Your task to perform on an android device: toggle pop-ups in chrome Image 0: 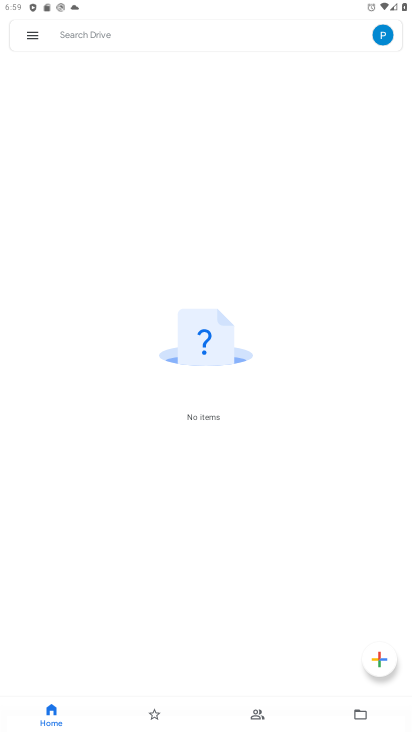
Step 0: press home button
Your task to perform on an android device: toggle pop-ups in chrome Image 1: 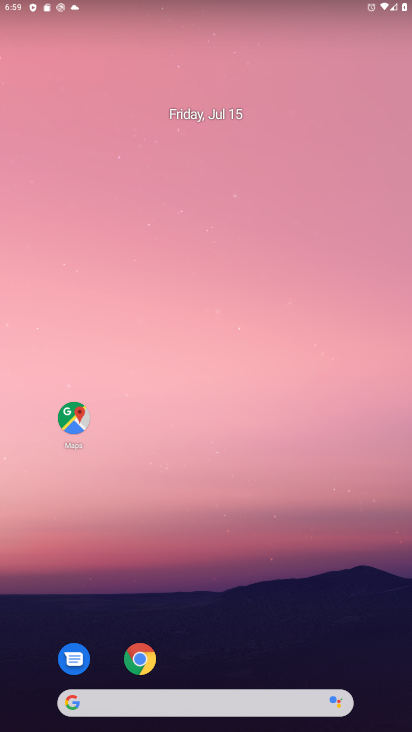
Step 1: click (141, 663)
Your task to perform on an android device: toggle pop-ups in chrome Image 2: 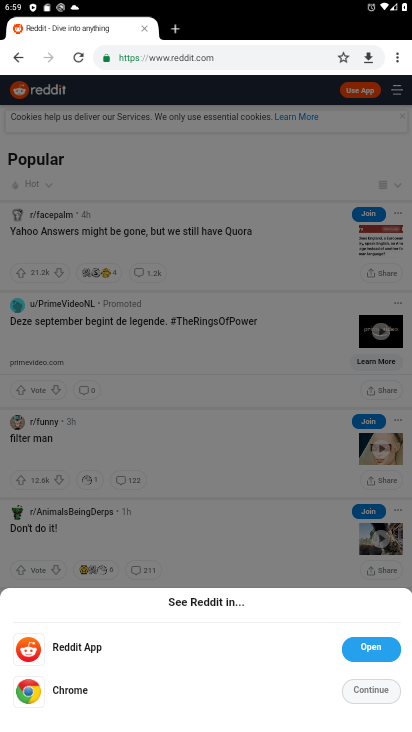
Step 2: click (394, 61)
Your task to perform on an android device: toggle pop-ups in chrome Image 3: 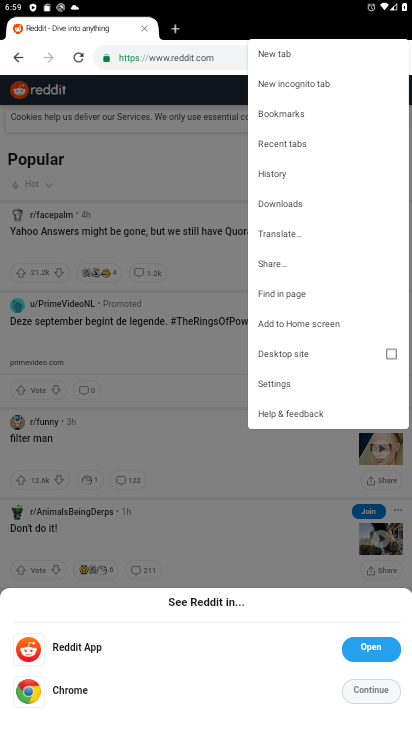
Step 3: click (281, 385)
Your task to perform on an android device: toggle pop-ups in chrome Image 4: 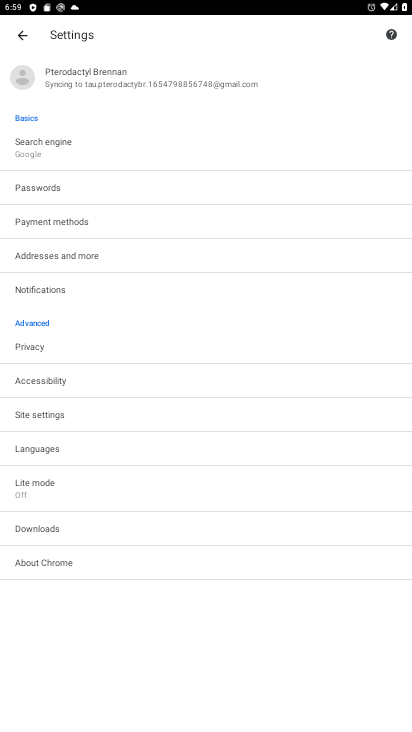
Step 4: click (37, 414)
Your task to perform on an android device: toggle pop-ups in chrome Image 5: 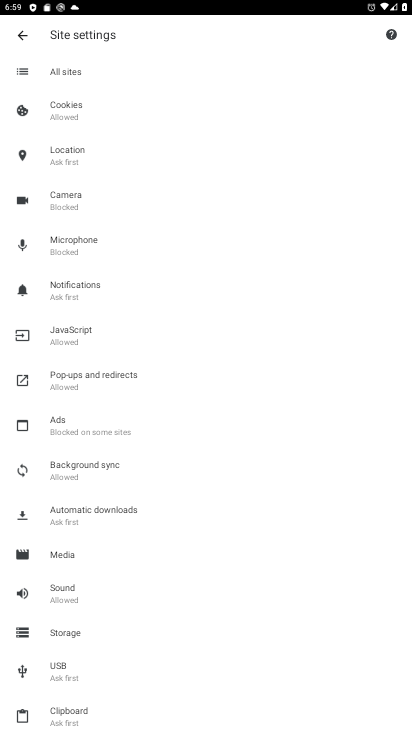
Step 5: click (64, 381)
Your task to perform on an android device: toggle pop-ups in chrome Image 6: 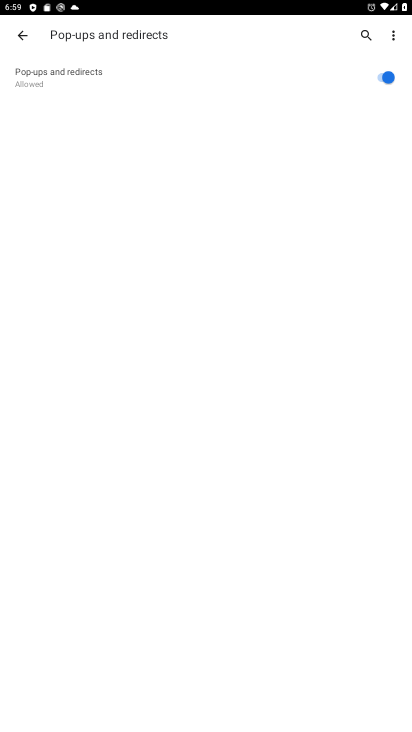
Step 6: click (376, 76)
Your task to perform on an android device: toggle pop-ups in chrome Image 7: 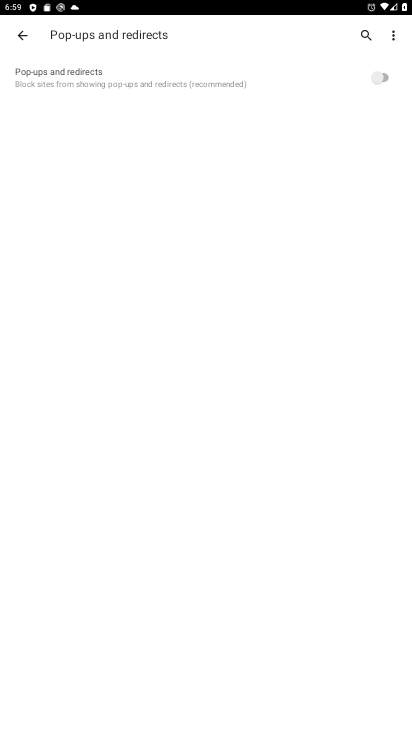
Step 7: task complete